Your task to perform on an android device: What's the weather going to be tomorrow? Image 0: 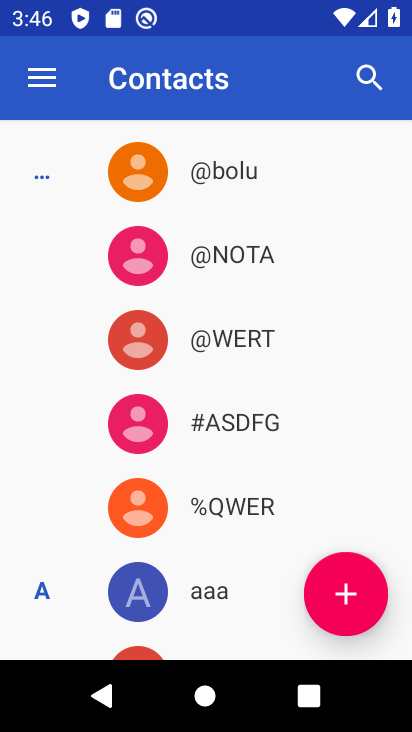
Step 0: press home button
Your task to perform on an android device: What's the weather going to be tomorrow? Image 1: 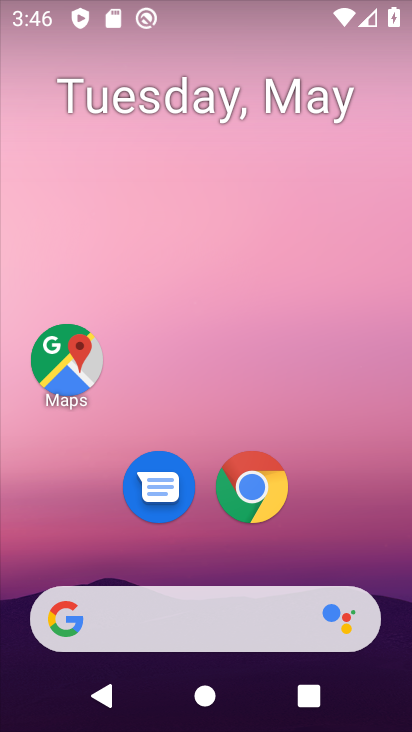
Step 1: drag from (341, 498) to (301, 130)
Your task to perform on an android device: What's the weather going to be tomorrow? Image 2: 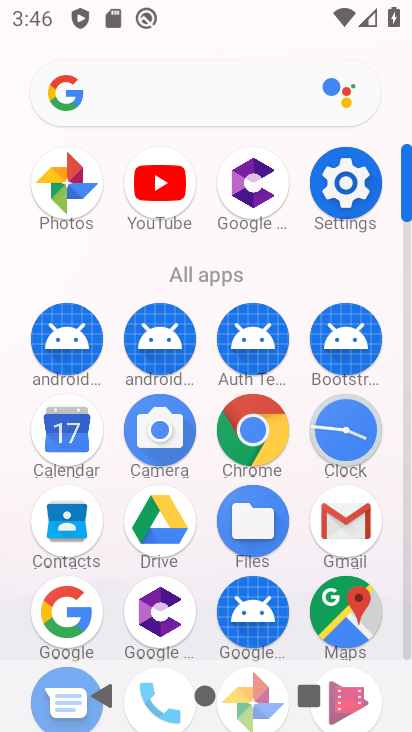
Step 2: click (241, 422)
Your task to perform on an android device: What's the weather going to be tomorrow? Image 3: 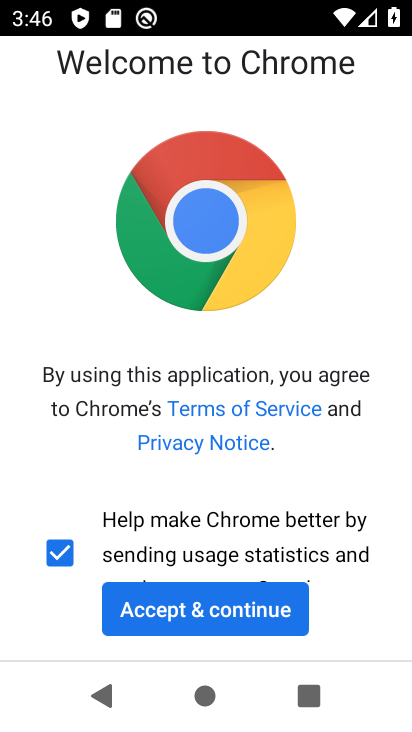
Step 3: click (249, 604)
Your task to perform on an android device: What's the weather going to be tomorrow? Image 4: 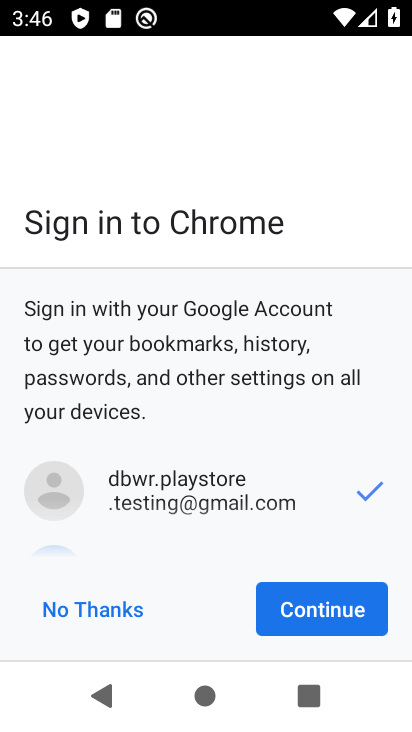
Step 4: click (308, 596)
Your task to perform on an android device: What's the weather going to be tomorrow? Image 5: 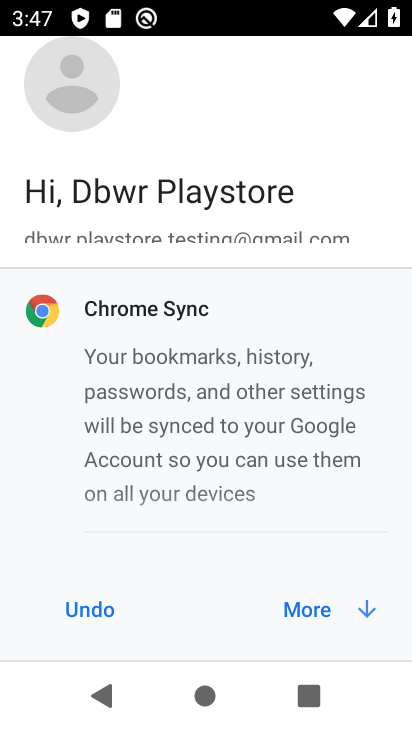
Step 5: click (323, 609)
Your task to perform on an android device: What's the weather going to be tomorrow? Image 6: 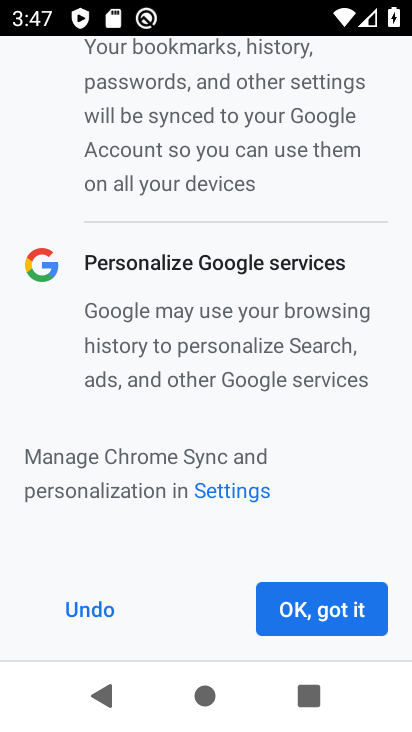
Step 6: click (321, 607)
Your task to perform on an android device: What's the weather going to be tomorrow? Image 7: 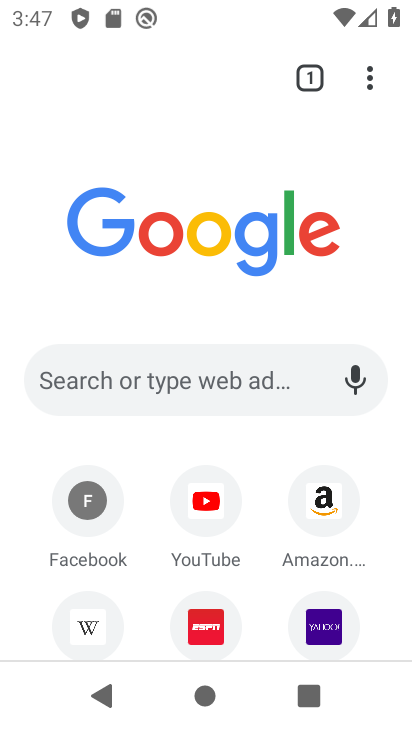
Step 7: click (216, 391)
Your task to perform on an android device: What's the weather going to be tomorrow? Image 8: 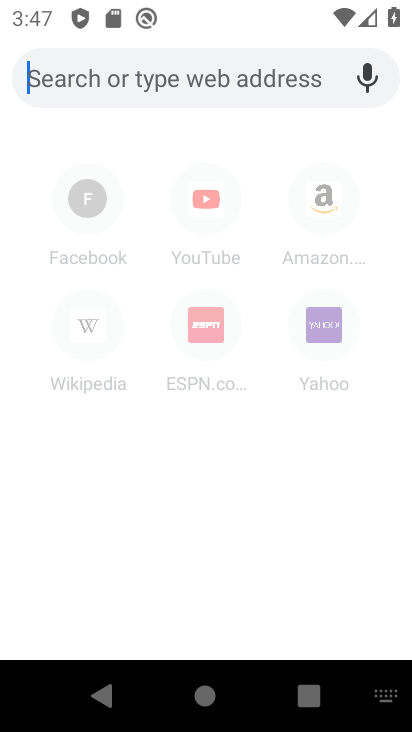
Step 8: type "weathrer"
Your task to perform on an android device: What's the weather going to be tomorrow? Image 9: 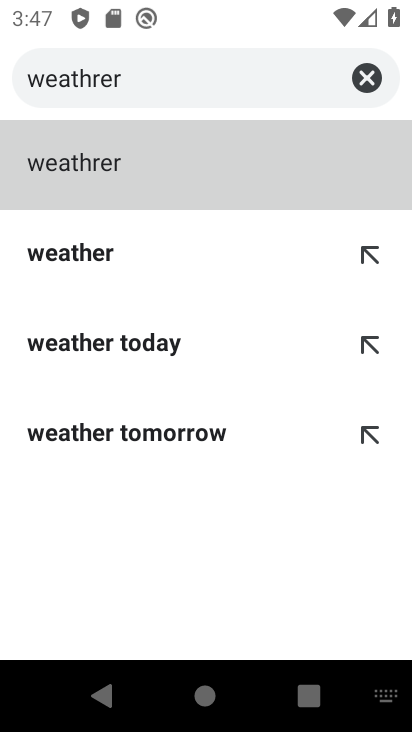
Step 9: click (68, 160)
Your task to perform on an android device: What's the weather going to be tomorrow? Image 10: 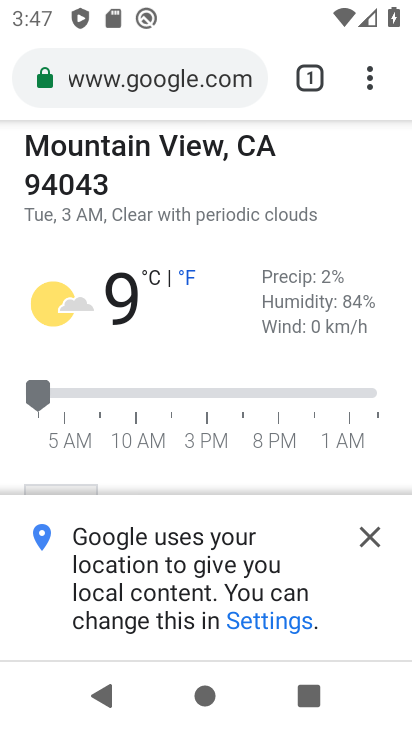
Step 10: drag from (187, 395) to (215, 119)
Your task to perform on an android device: What's the weather going to be tomorrow? Image 11: 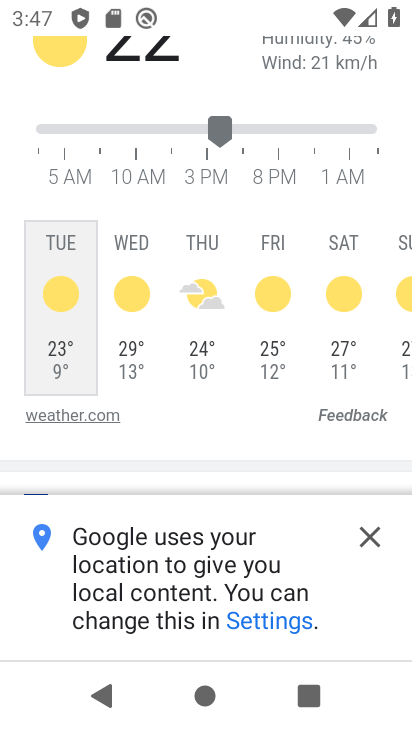
Step 11: click (140, 286)
Your task to perform on an android device: What's the weather going to be tomorrow? Image 12: 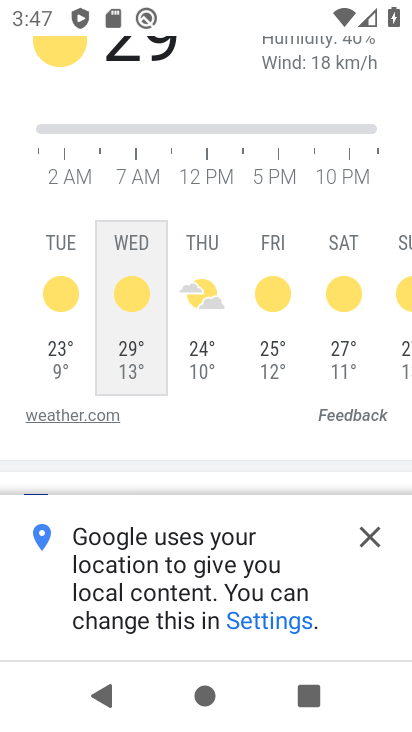
Step 12: drag from (283, 149) to (287, 364)
Your task to perform on an android device: What's the weather going to be tomorrow? Image 13: 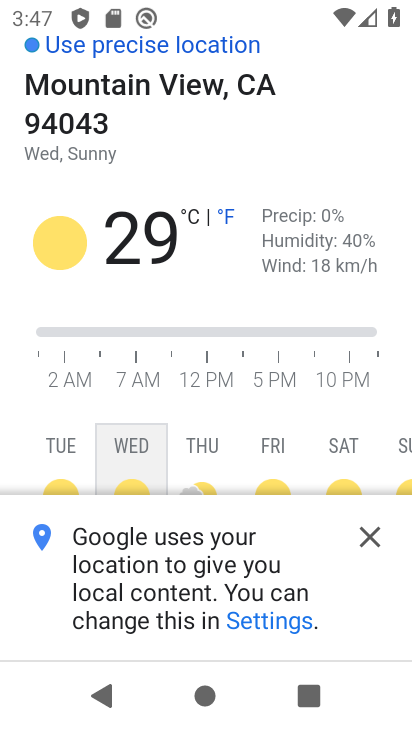
Step 13: click (374, 528)
Your task to perform on an android device: What's the weather going to be tomorrow? Image 14: 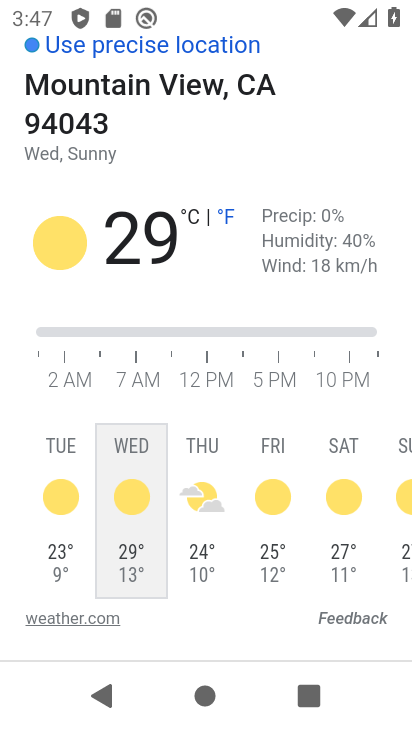
Step 14: task complete